Your task to perform on an android device: See recent photos Image 0: 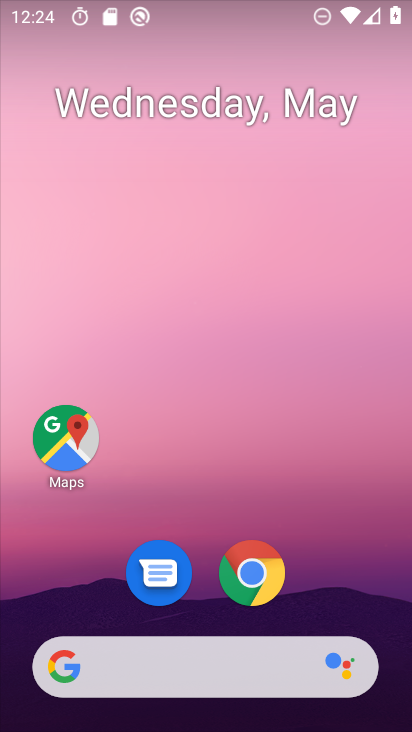
Step 0: drag from (311, 581) to (262, 14)
Your task to perform on an android device: See recent photos Image 1: 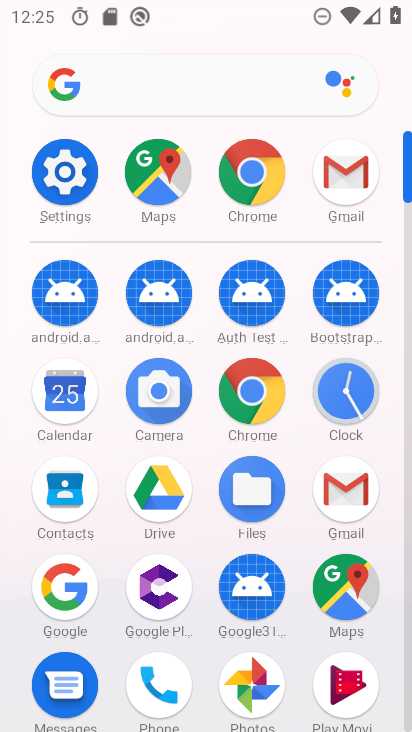
Step 1: click (3, 286)
Your task to perform on an android device: See recent photos Image 2: 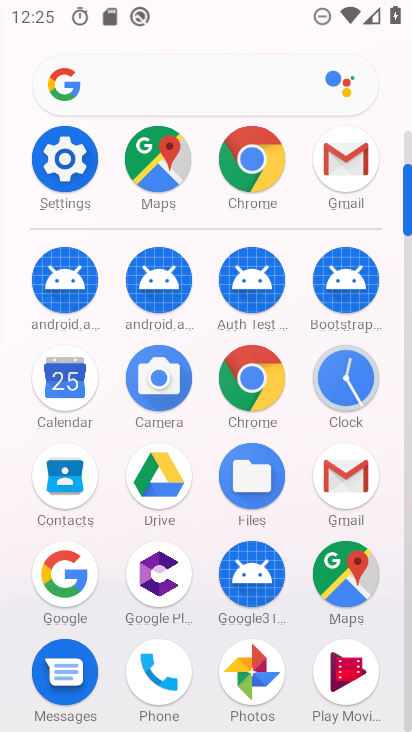
Step 2: click (257, 664)
Your task to perform on an android device: See recent photos Image 3: 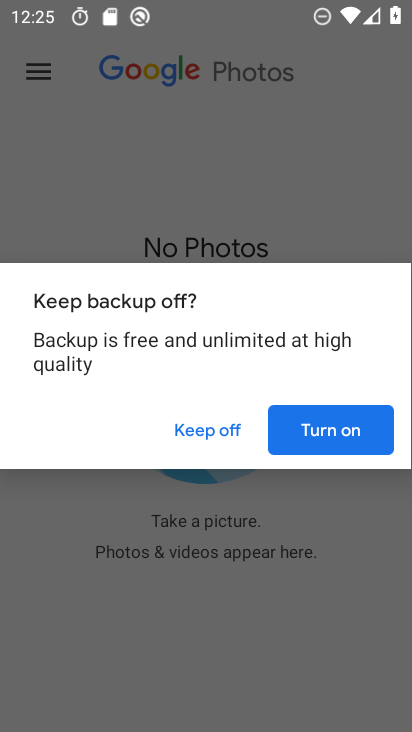
Step 3: click (336, 427)
Your task to perform on an android device: See recent photos Image 4: 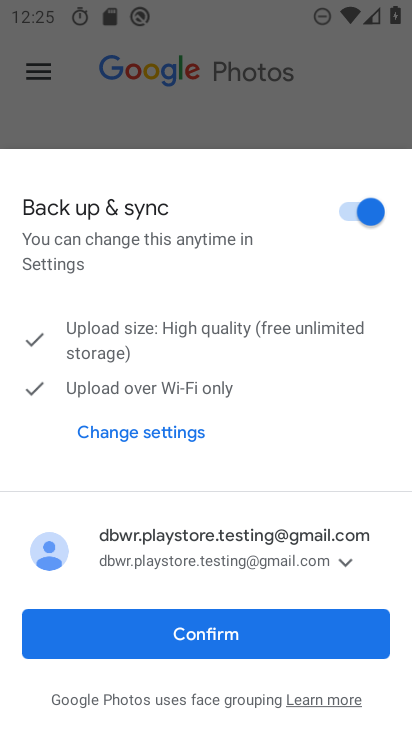
Step 4: click (235, 645)
Your task to perform on an android device: See recent photos Image 5: 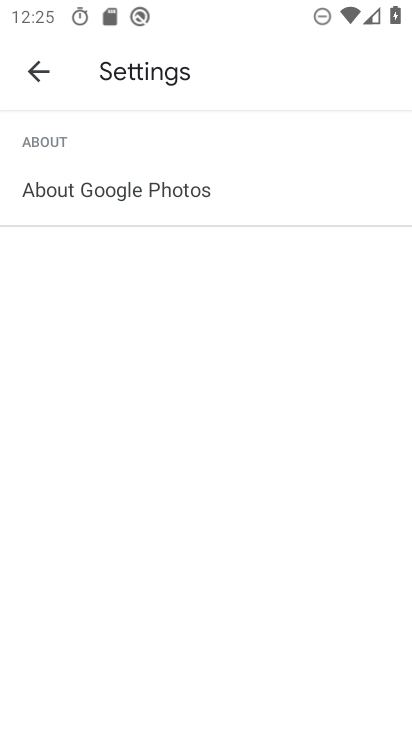
Step 5: click (44, 69)
Your task to perform on an android device: See recent photos Image 6: 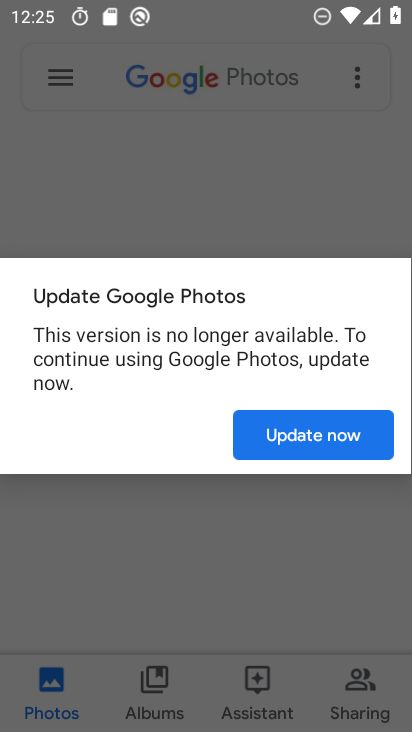
Step 6: click (297, 420)
Your task to perform on an android device: See recent photos Image 7: 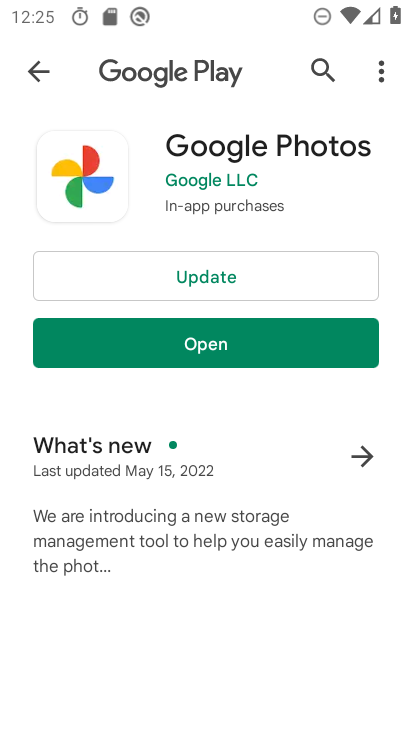
Step 7: click (190, 261)
Your task to perform on an android device: See recent photos Image 8: 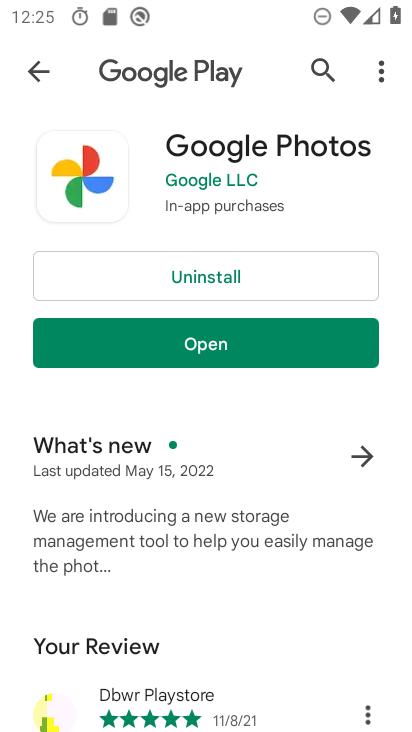
Step 8: click (147, 346)
Your task to perform on an android device: See recent photos Image 9: 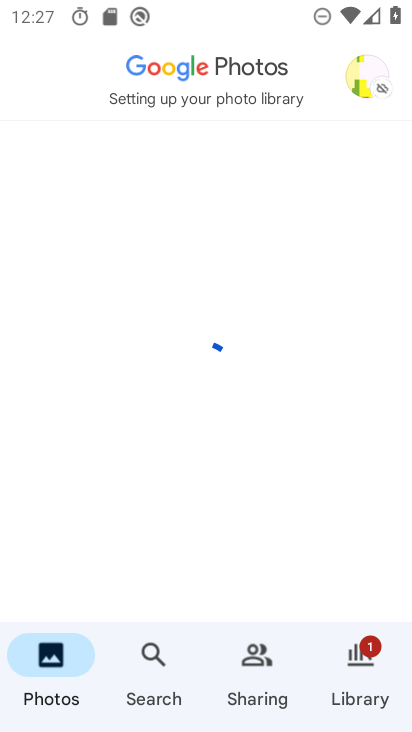
Step 9: task complete